Your task to perform on an android device: Search for flights from Helsinki to Seoul Image 0: 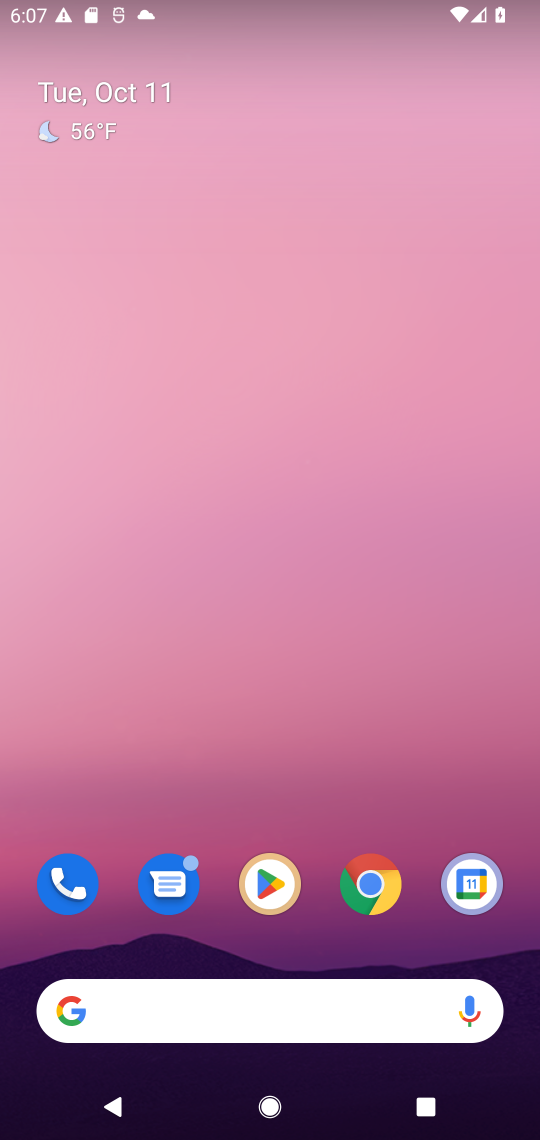
Step 0: drag from (300, 902) to (219, 14)
Your task to perform on an android device: Search for flights from Helsinki to Seoul Image 1: 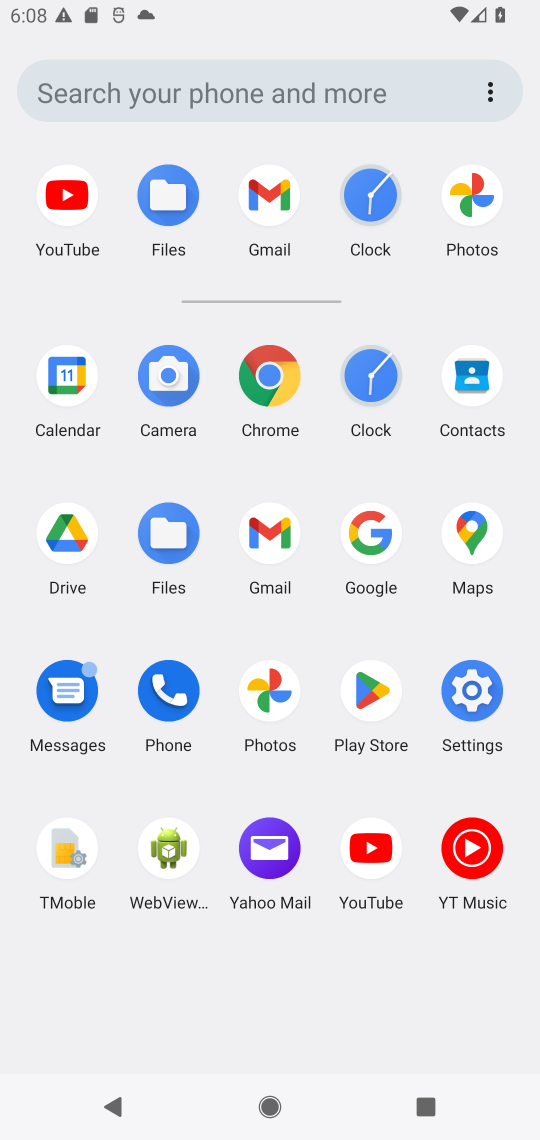
Step 1: click (364, 546)
Your task to perform on an android device: Search for flights from Helsinki to Seoul Image 2: 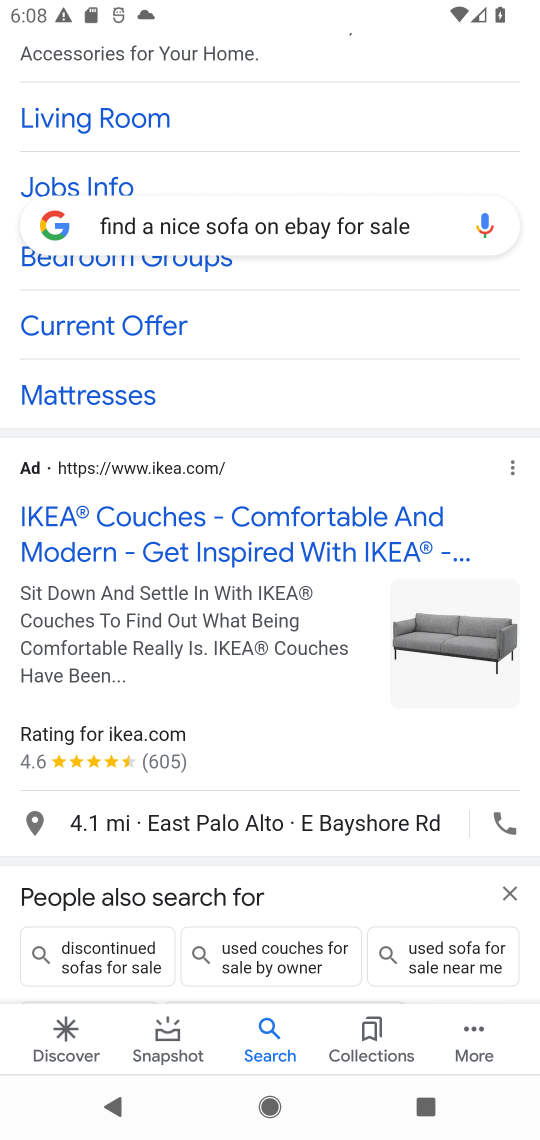
Step 2: drag from (323, 330) to (247, 862)
Your task to perform on an android device: Search for flights from Helsinki to Seoul Image 3: 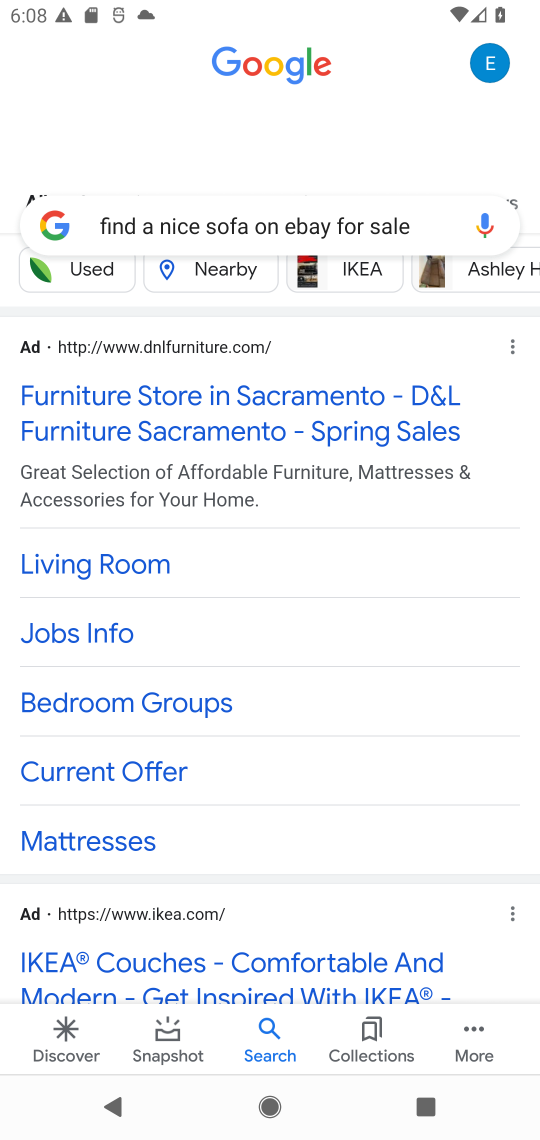
Step 3: click (315, 230)
Your task to perform on an android device: Search for flights from Helsinki to Seoul Image 4: 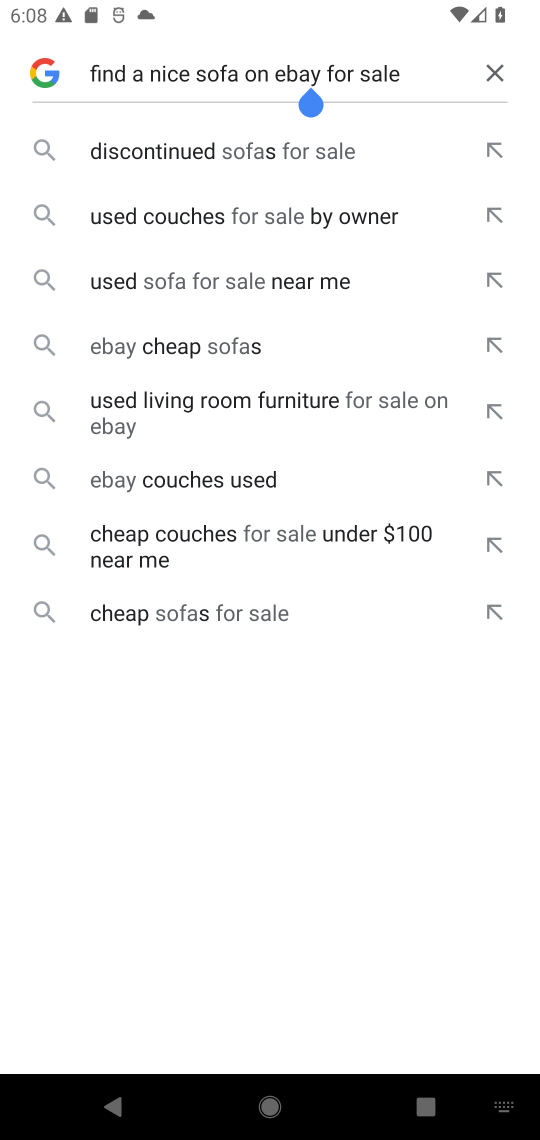
Step 4: click (497, 66)
Your task to perform on an android device: Search for flights from Helsinki to Seoul Image 5: 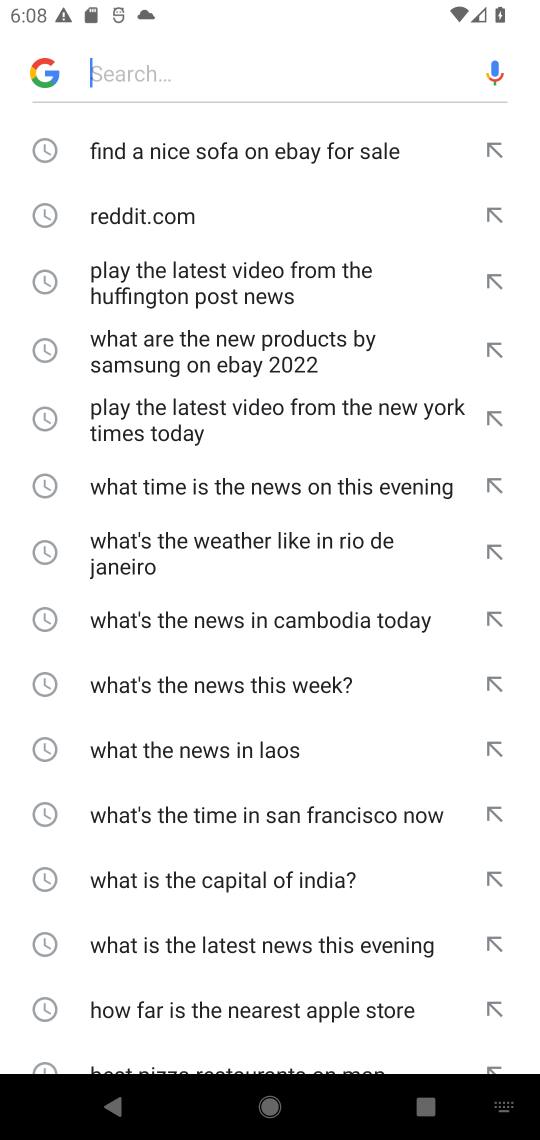
Step 5: type "Search for flights from Helsinki to Seoul"
Your task to perform on an android device: Search for flights from Helsinki to Seoul Image 6: 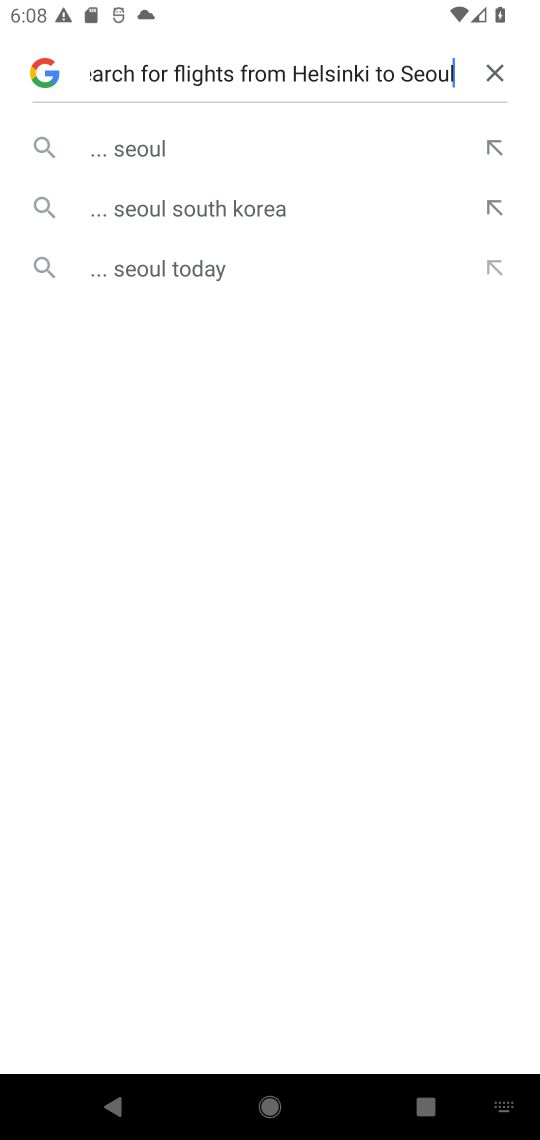
Step 6: type ""
Your task to perform on an android device: Search for flights from Helsinki to Seoul Image 7: 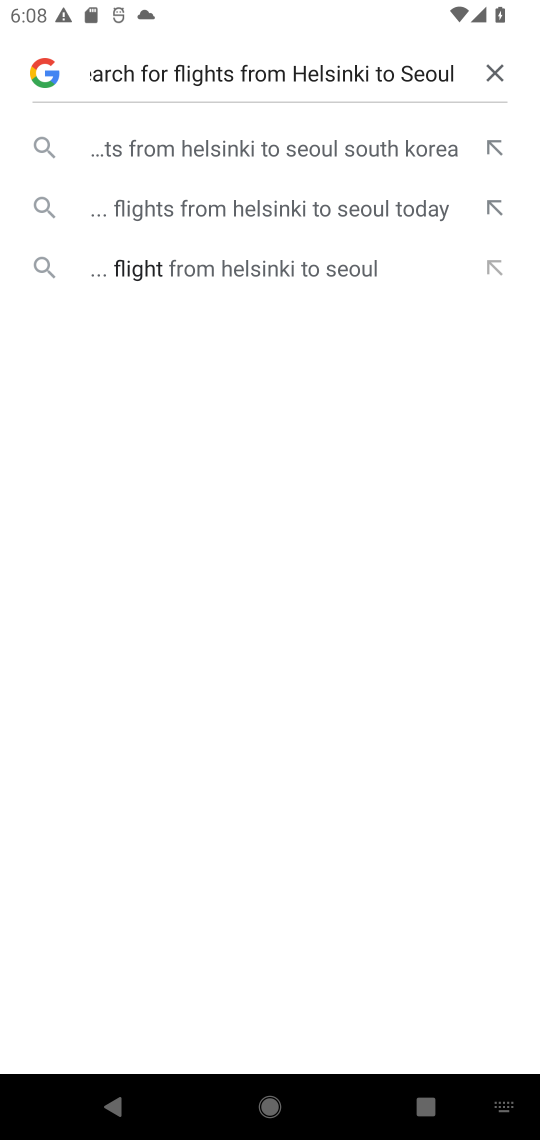
Step 7: click (284, 266)
Your task to perform on an android device: Search for flights from Helsinki to Seoul Image 8: 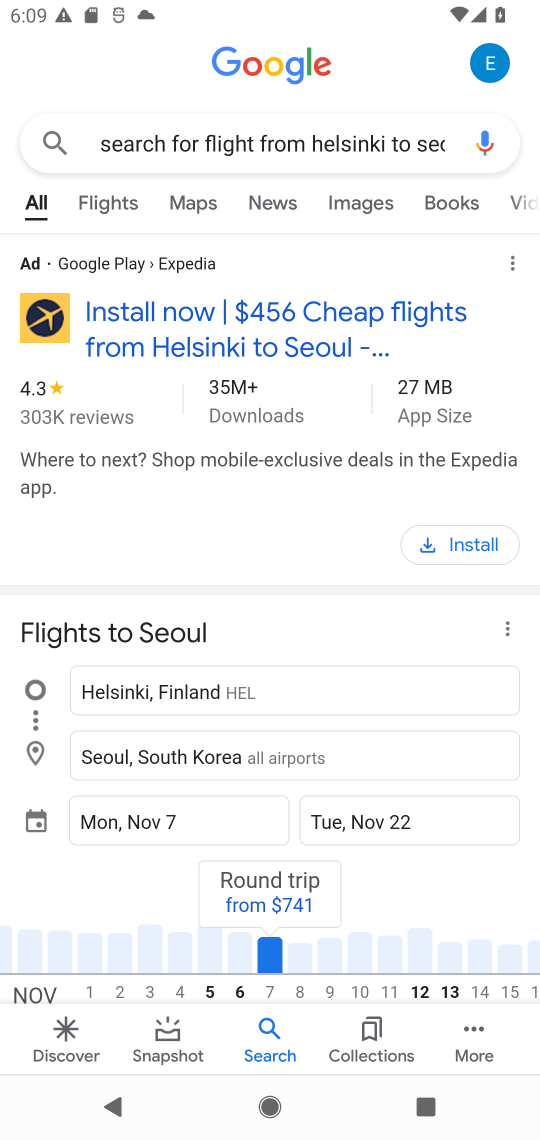
Step 8: task complete